Your task to perform on an android device: Go to Reddit.com Image 0: 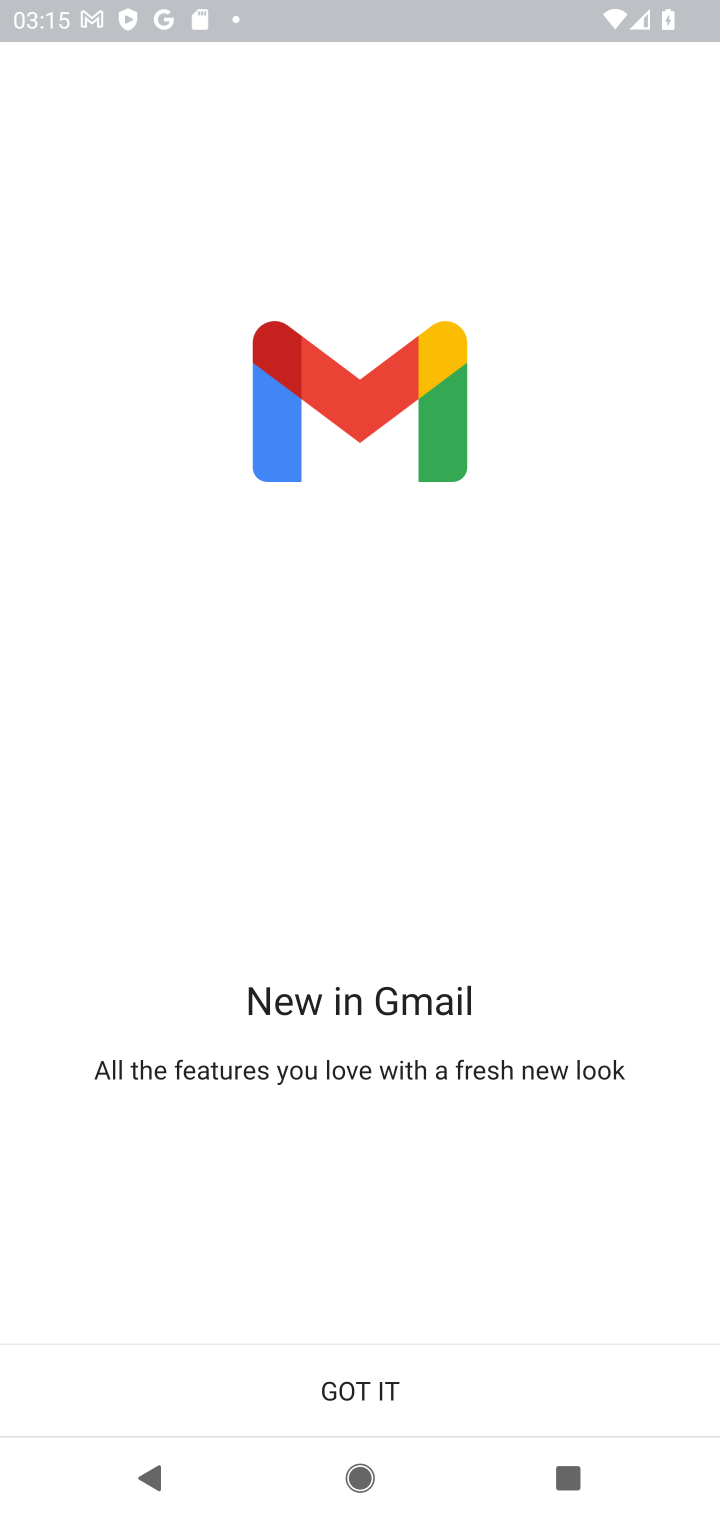
Step 0: press home button
Your task to perform on an android device: Go to Reddit.com Image 1: 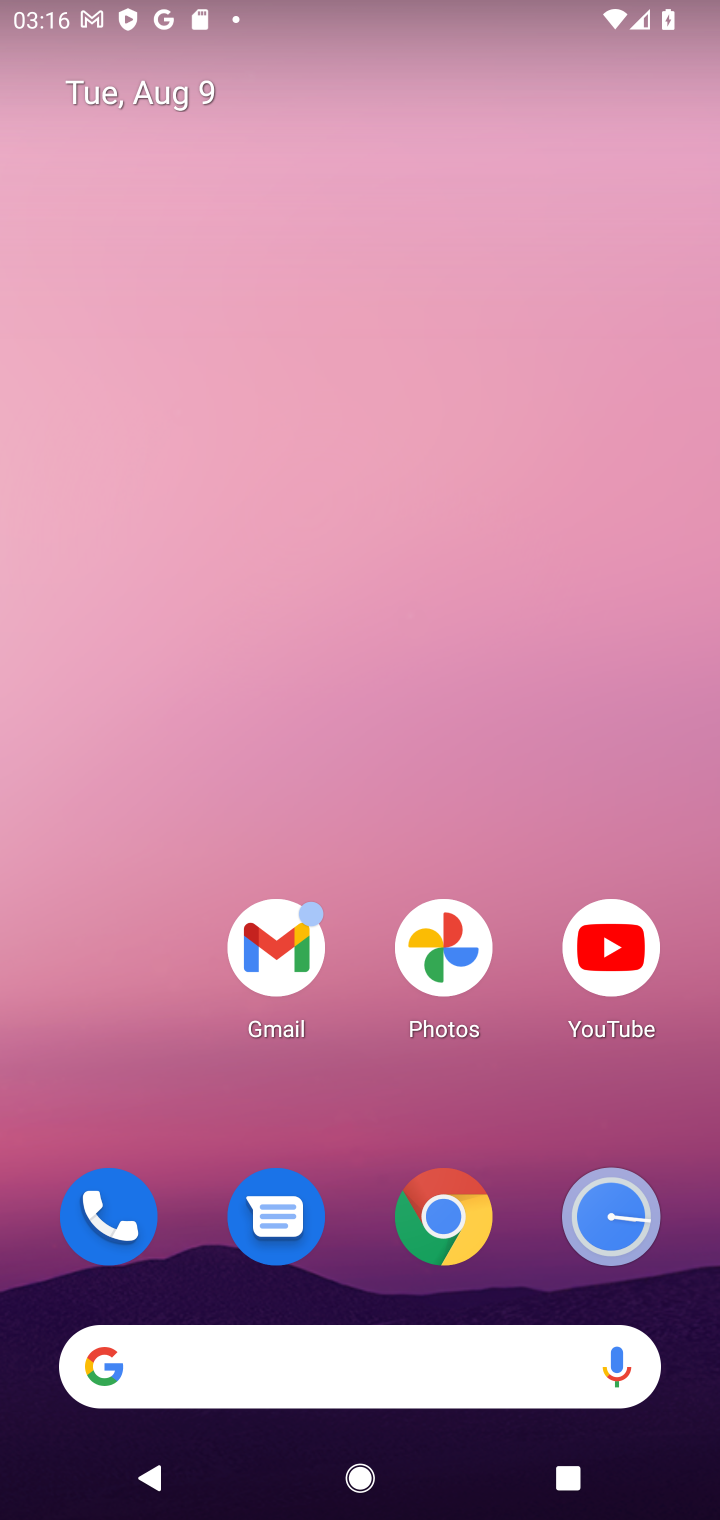
Step 1: drag from (393, 1130) to (392, 473)
Your task to perform on an android device: Go to Reddit.com Image 2: 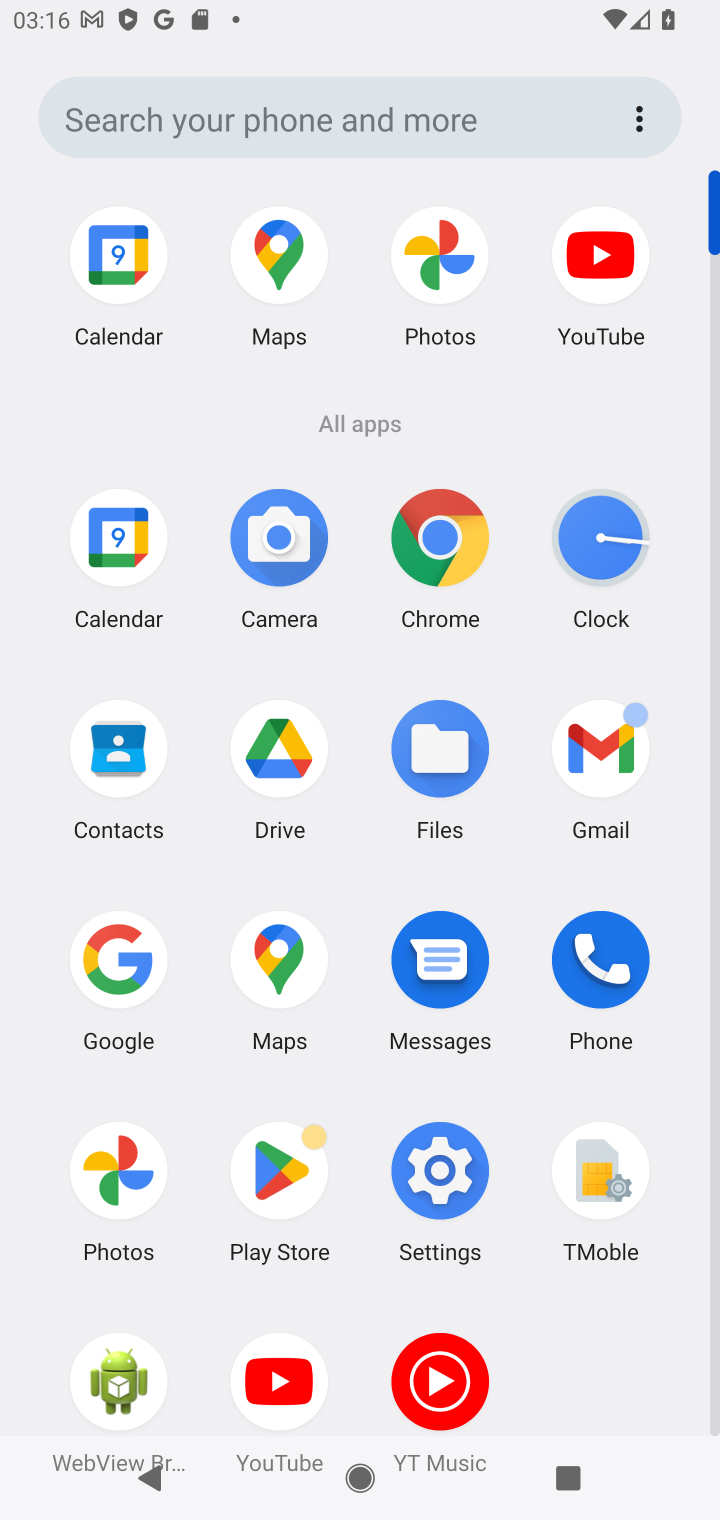
Step 2: click (441, 572)
Your task to perform on an android device: Go to Reddit.com Image 3: 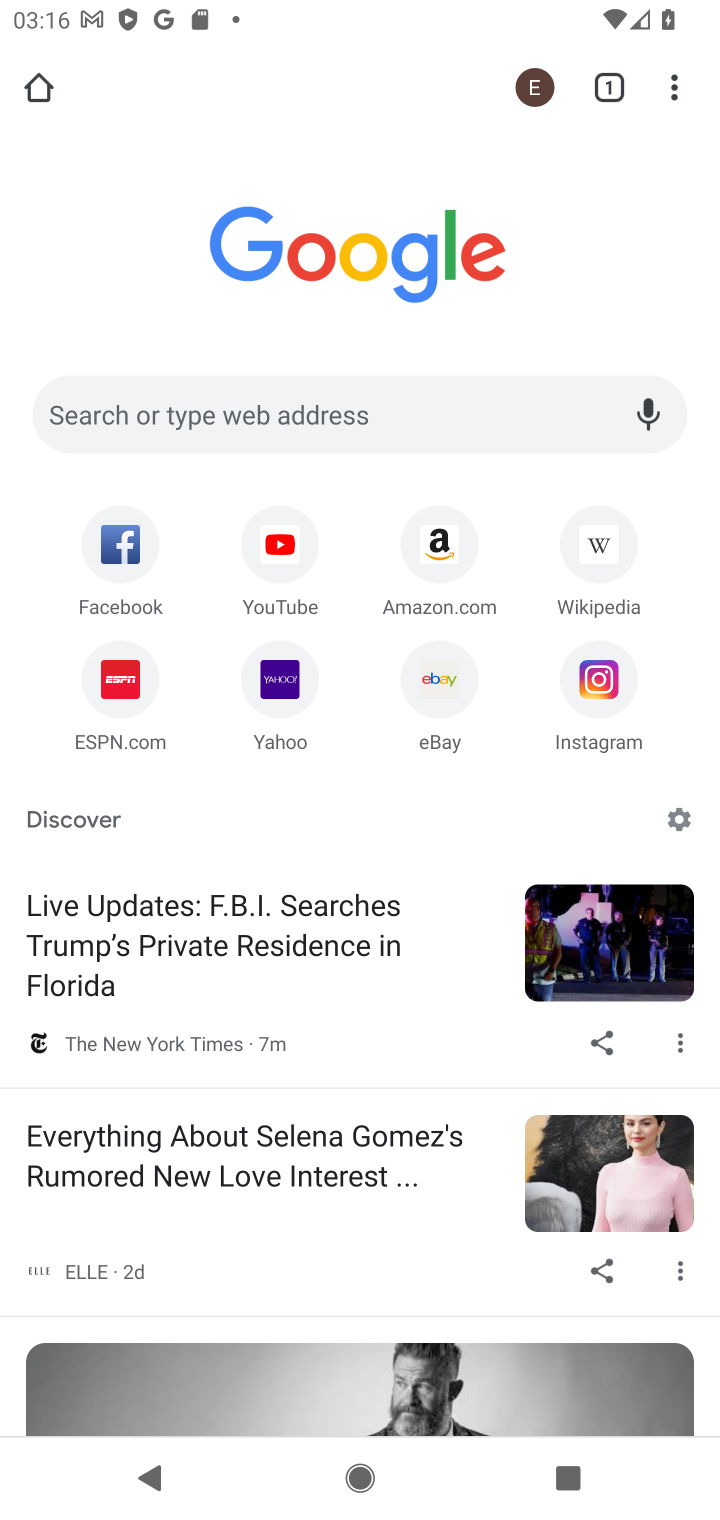
Step 3: click (536, 404)
Your task to perform on an android device: Go to Reddit.com Image 4: 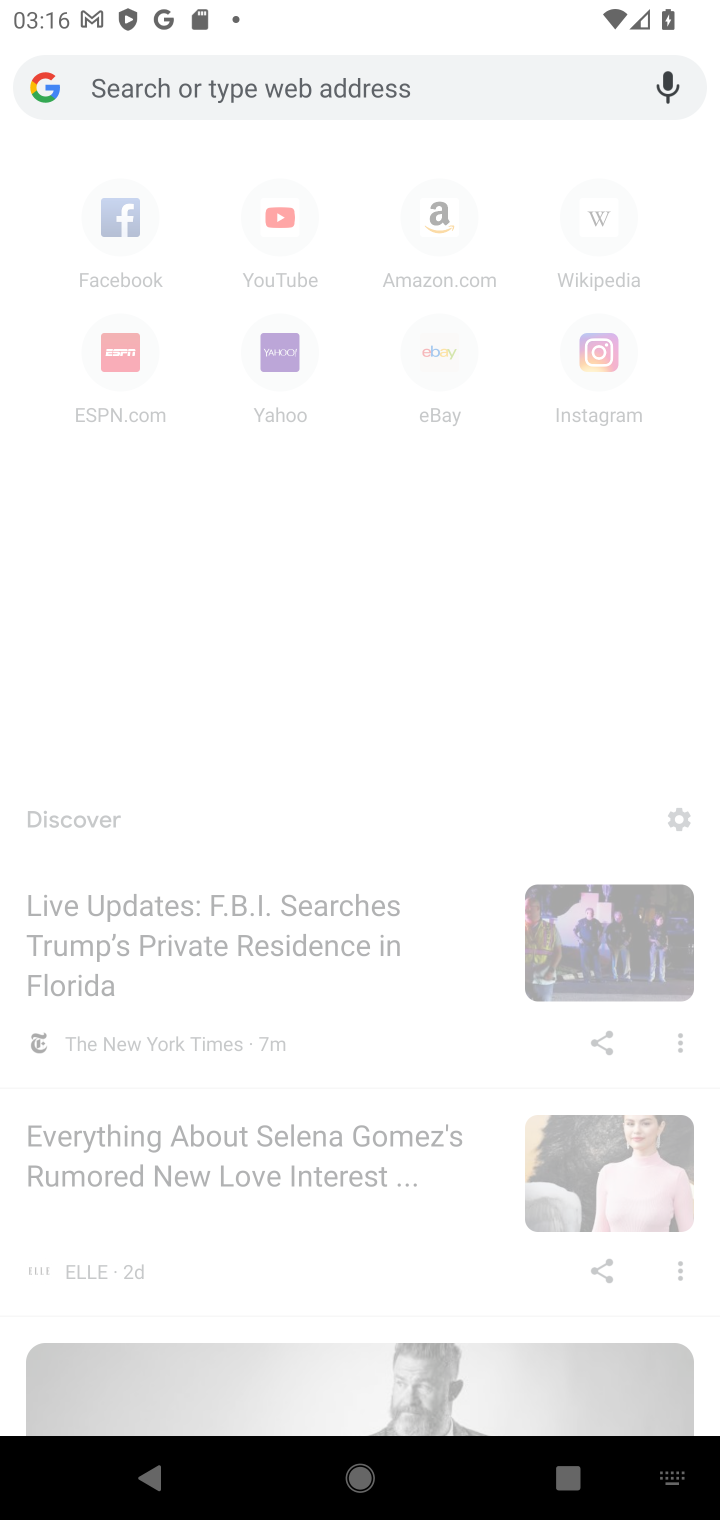
Step 4: type "reddit.com"
Your task to perform on an android device: Go to Reddit.com Image 5: 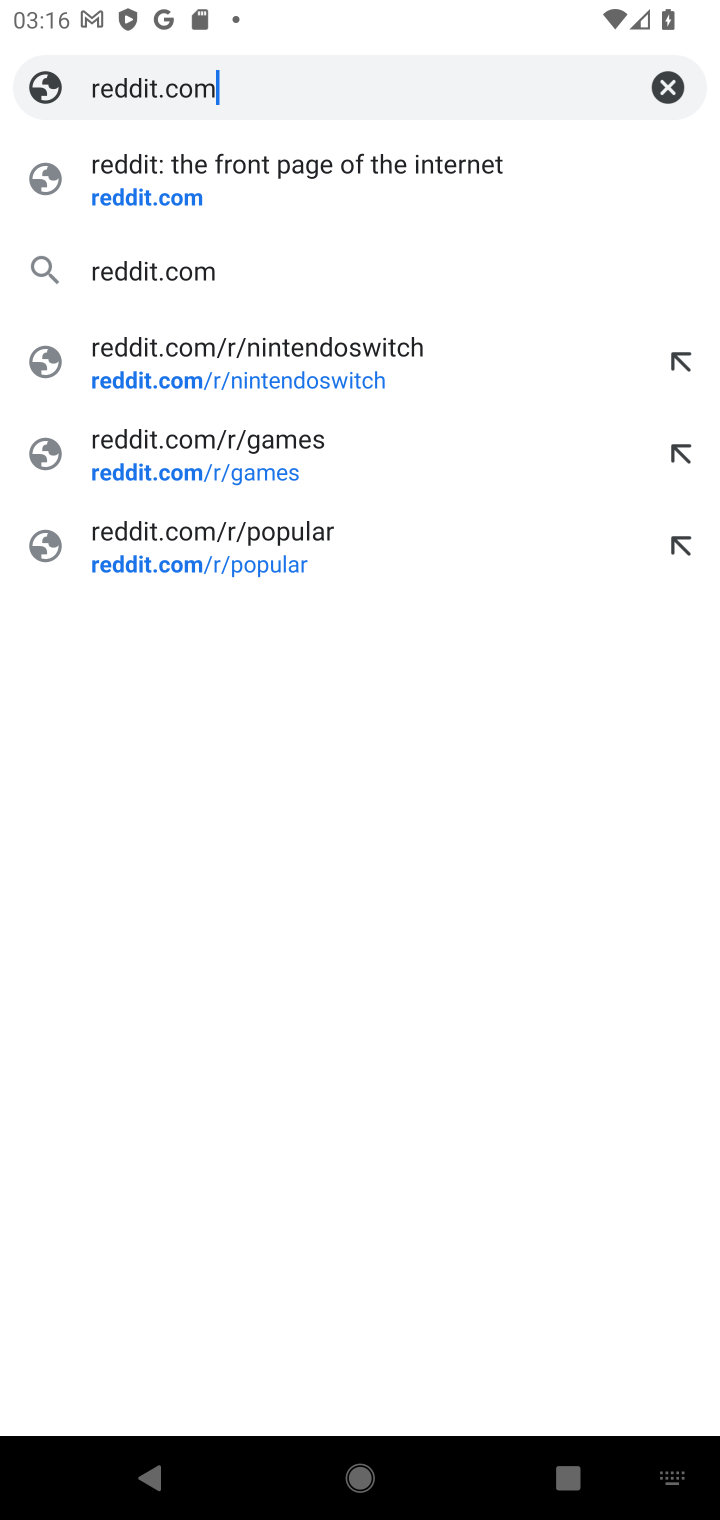
Step 5: click (160, 197)
Your task to perform on an android device: Go to Reddit.com Image 6: 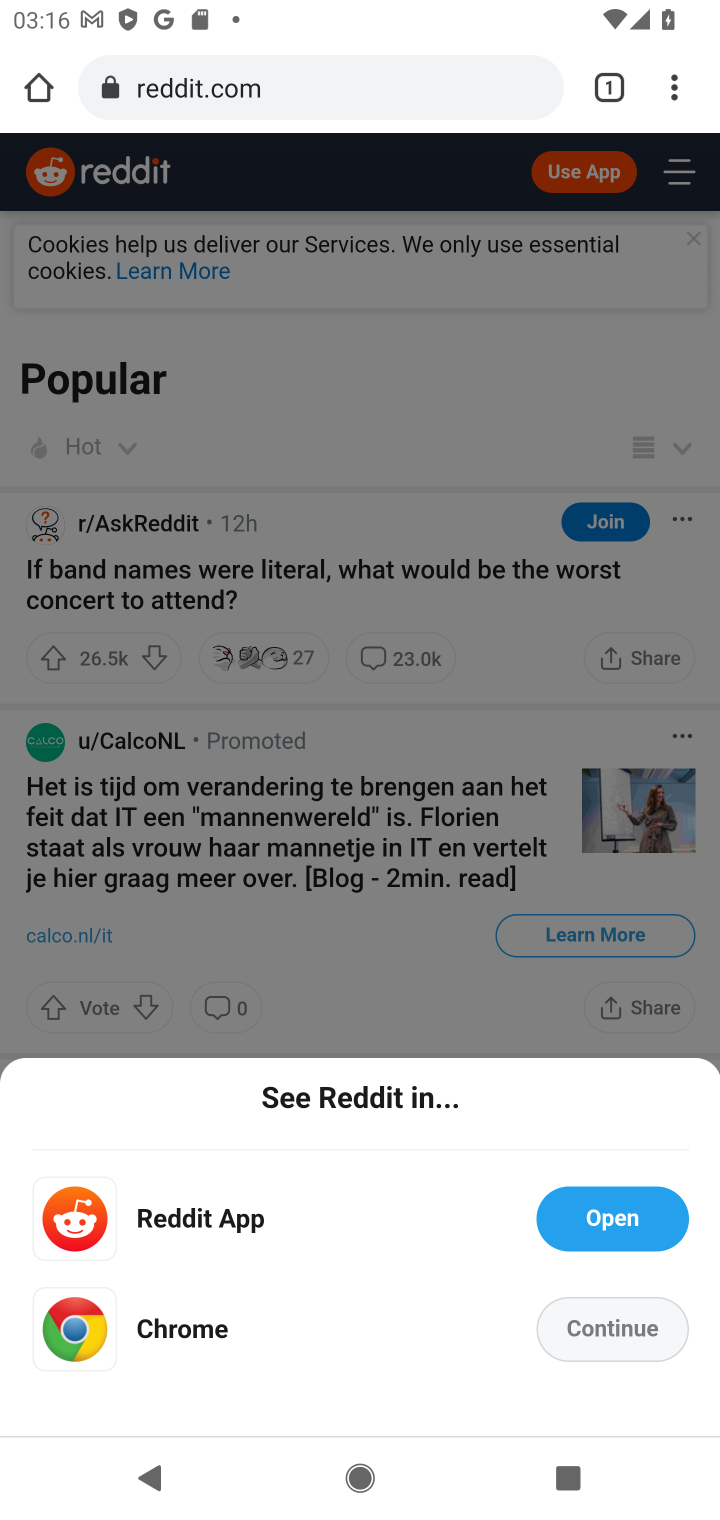
Step 6: task complete